Your task to perform on an android device: Play the last video I watched on Youtube Image 0: 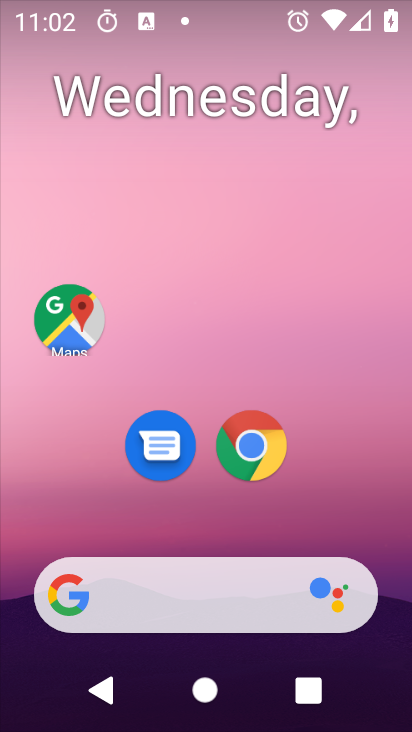
Step 0: drag from (312, 495) to (274, 82)
Your task to perform on an android device: Play the last video I watched on Youtube Image 1: 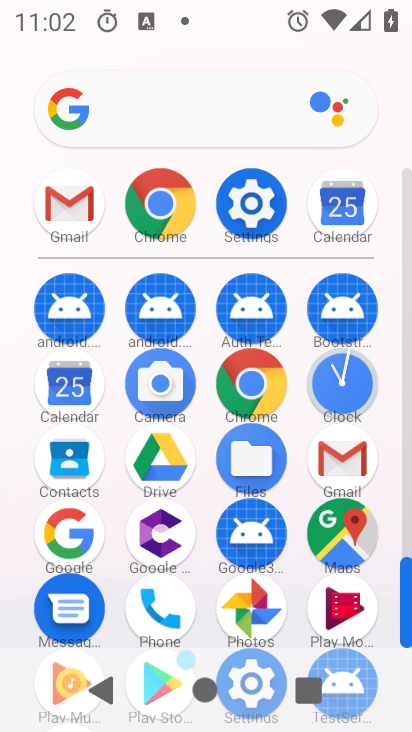
Step 1: drag from (411, 489) to (380, 173)
Your task to perform on an android device: Play the last video I watched on Youtube Image 2: 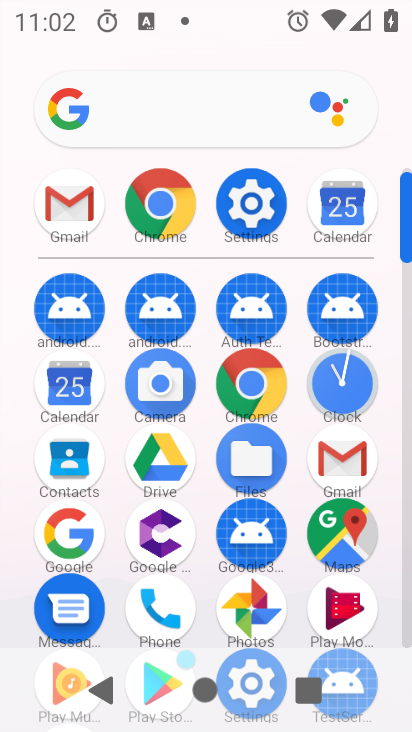
Step 2: drag from (404, 598) to (365, 264)
Your task to perform on an android device: Play the last video I watched on Youtube Image 3: 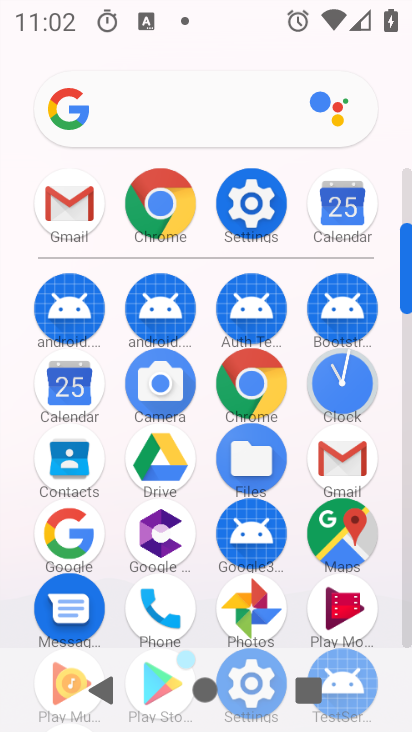
Step 3: drag from (392, 567) to (329, 208)
Your task to perform on an android device: Play the last video I watched on Youtube Image 4: 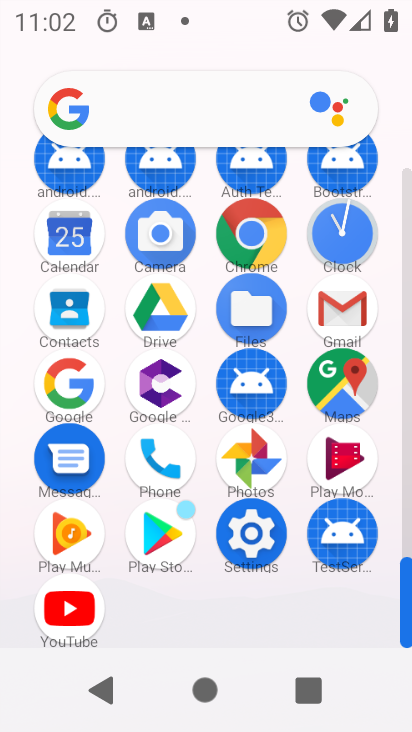
Step 4: click (45, 611)
Your task to perform on an android device: Play the last video I watched on Youtube Image 5: 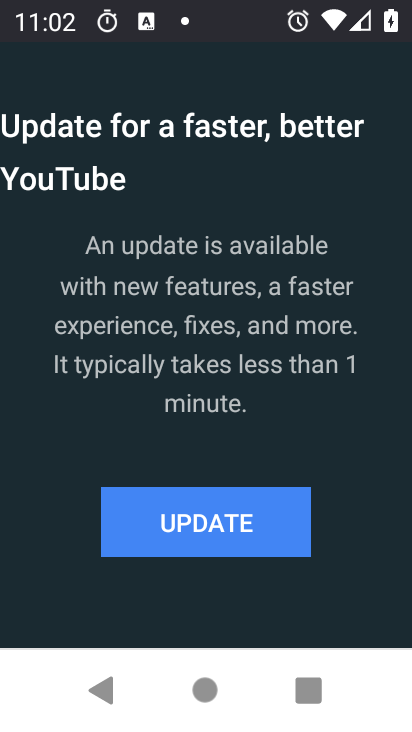
Step 5: click (213, 540)
Your task to perform on an android device: Play the last video I watched on Youtube Image 6: 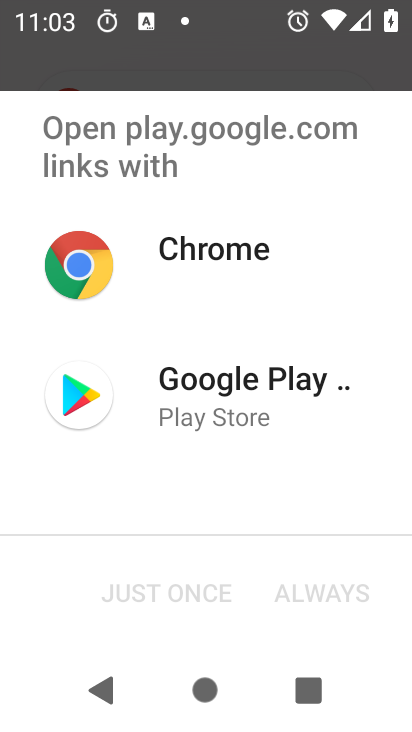
Step 6: click (187, 412)
Your task to perform on an android device: Play the last video I watched on Youtube Image 7: 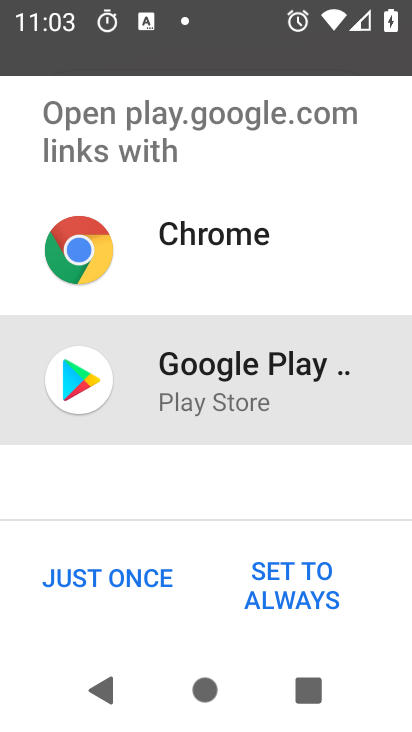
Step 7: click (186, 585)
Your task to perform on an android device: Play the last video I watched on Youtube Image 8: 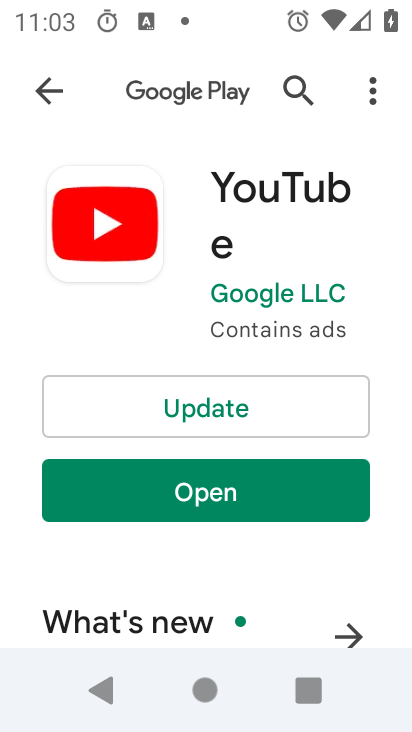
Step 8: click (202, 442)
Your task to perform on an android device: Play the last video I watched on Youtube Image 9: 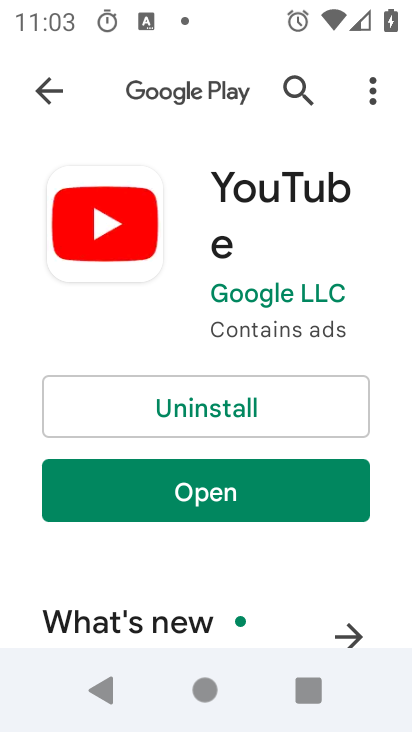
Step 9: click (263, 491)
Your task to perform on an android device: Play the last video I watched on Youtube Image 10: 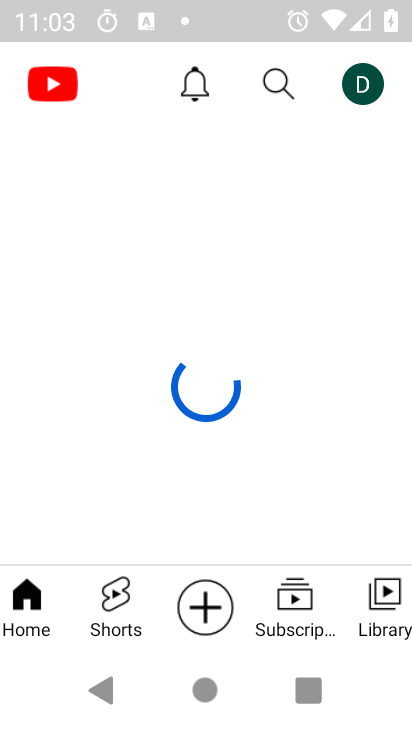
Step 10: click (365, 604)
Your task to perform on an android device: Play the last video I watched on Youtube Image 11: 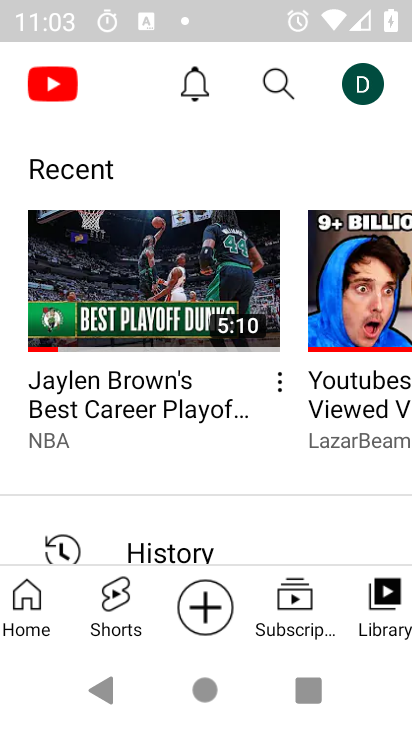
Step 11: click (115, 302)
Your task to perform on an android device: Play the last video I watched on Youtube Image 12: 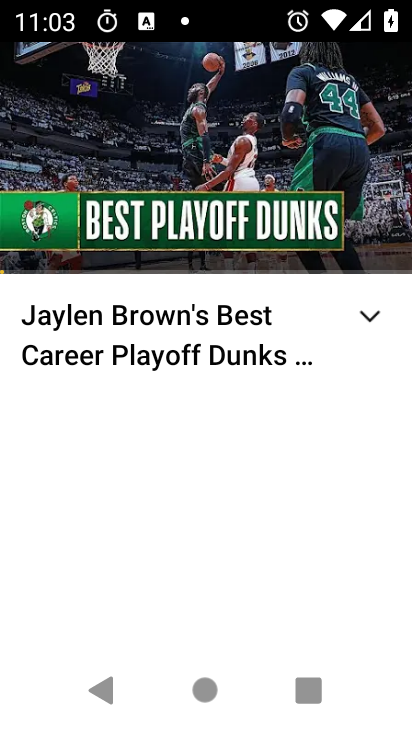
Step 12: task complete